Your task to perform on an android device: set the timer Image 0: 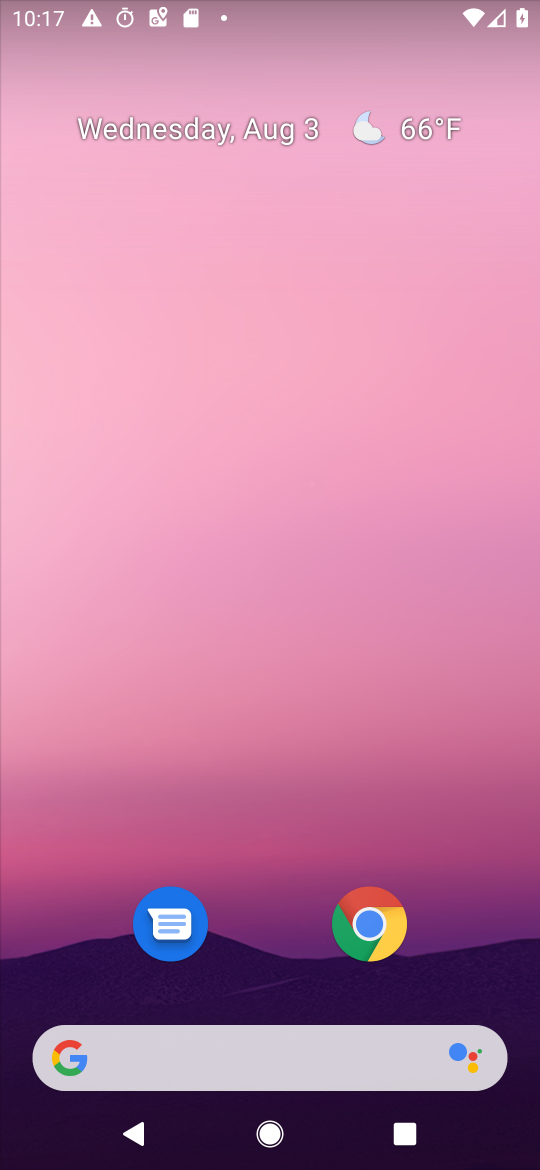
Step 0: drag from (276, 983) to (287, 140)
Your task to perform on an android device: set the timer Image 1: 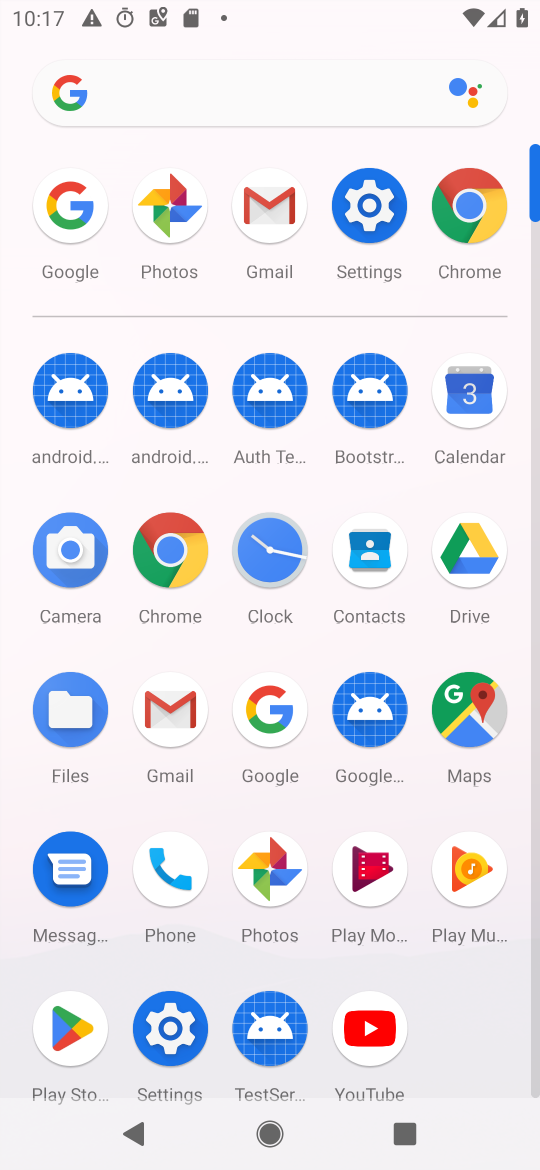
Step 1: click (261, 537)
Your task to perform on an android device: set the timer Image 2: 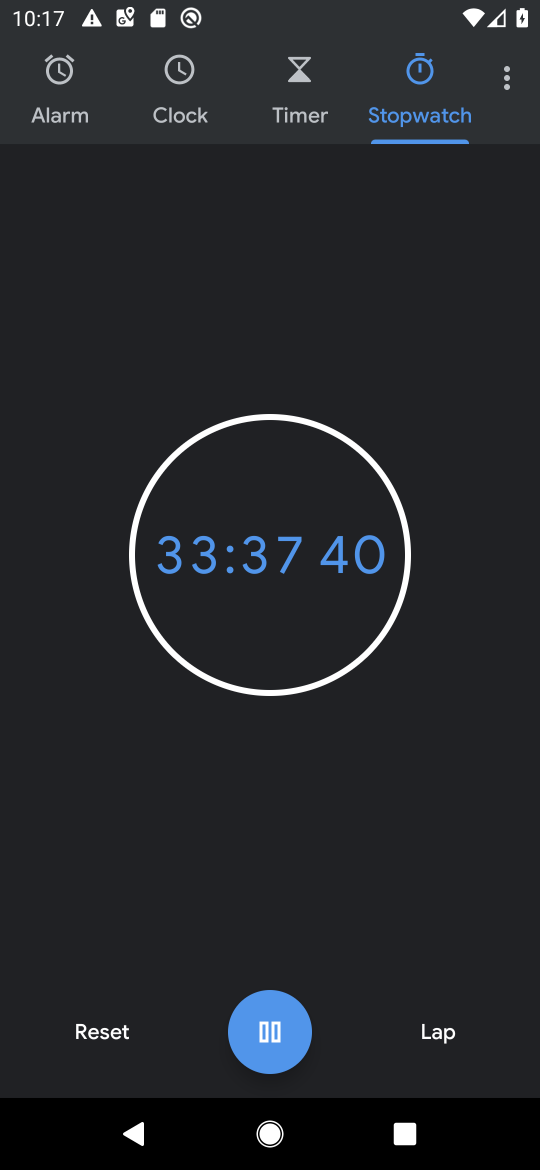
Step 2: click (88, 1023)
Your task to perform on an android device: set the timer Image 3: 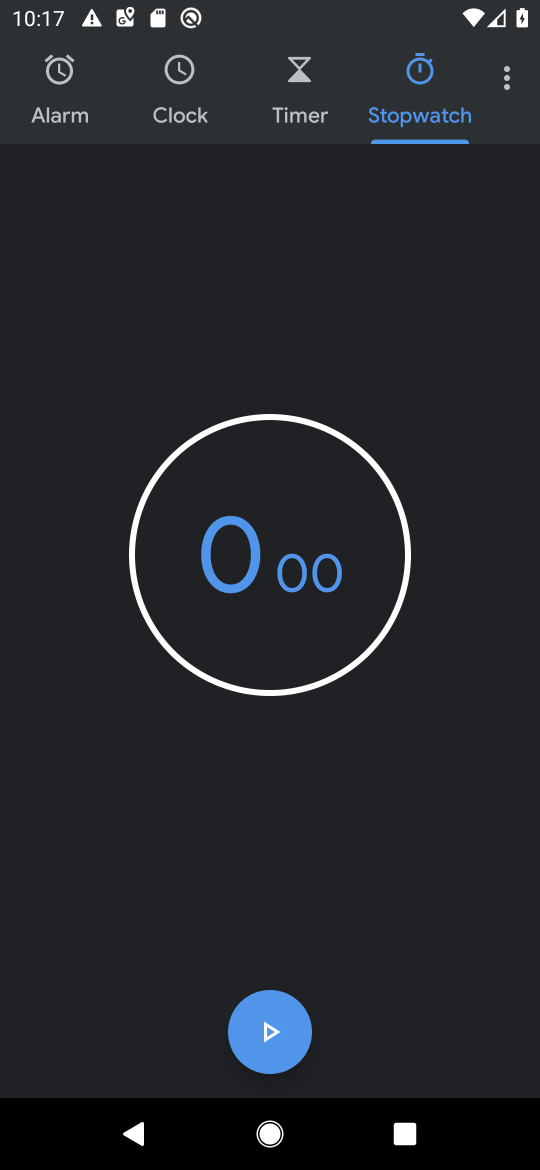
Step 3: click (287, 69)
Your task to perform on an android device: set the timer Image 4: 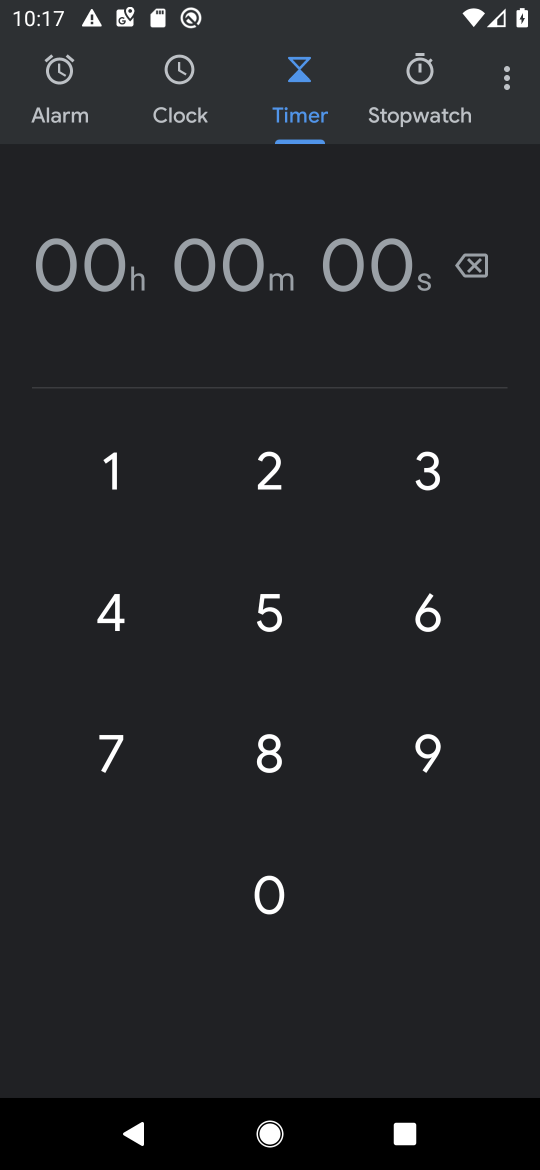
Step 4: click (271, 466)
Your task to perform on an android device: set the timer Image 5: 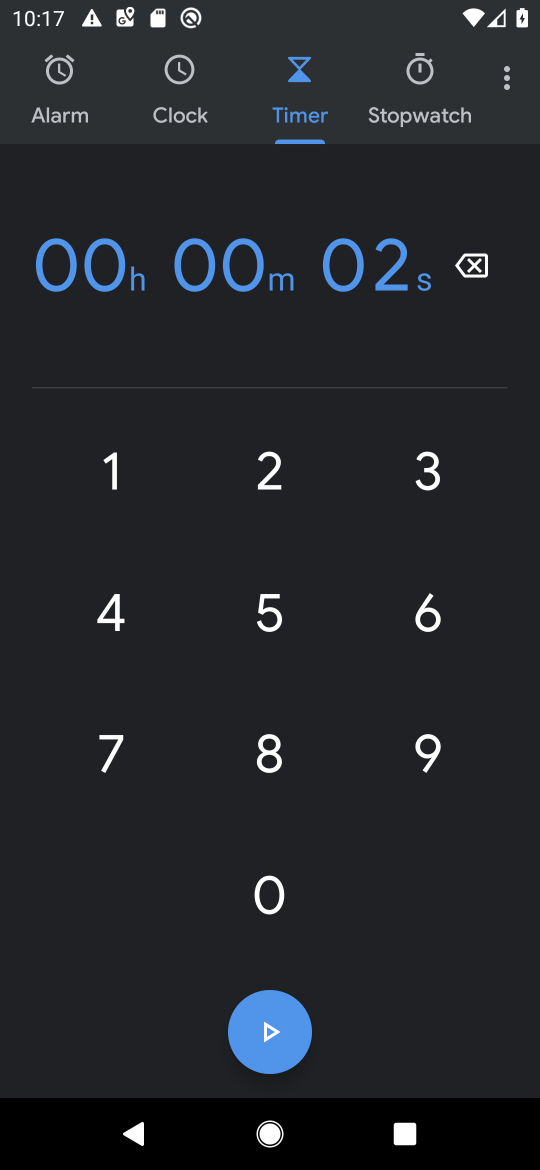
Step 5: click (263, 896)
Your task to perform on an android device: set the timer Image 6: 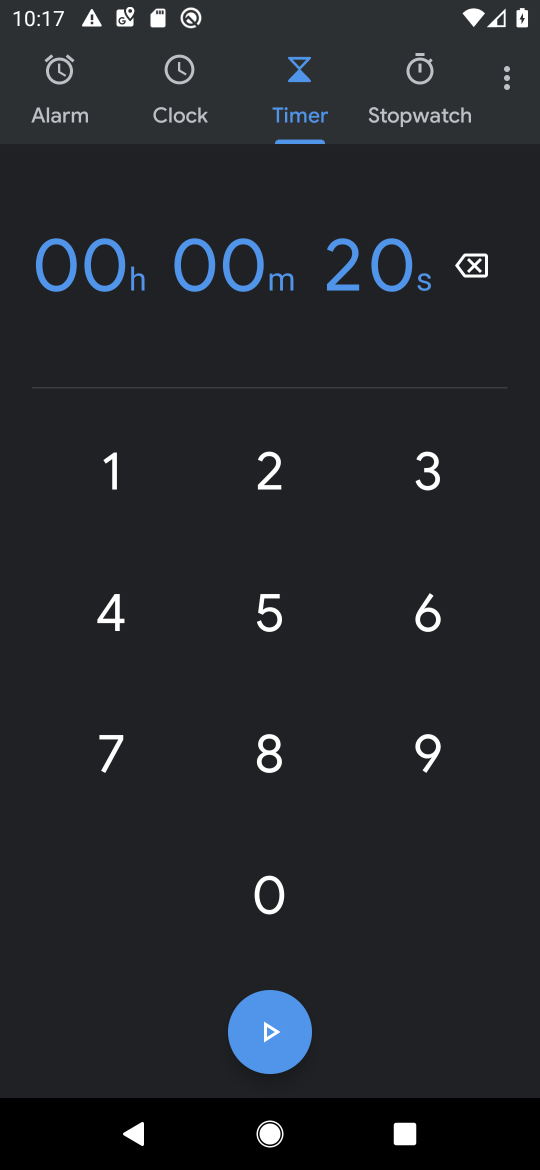
Step 6: click (263, 896)
Your task to perform on an android device: set the timer Image 7: 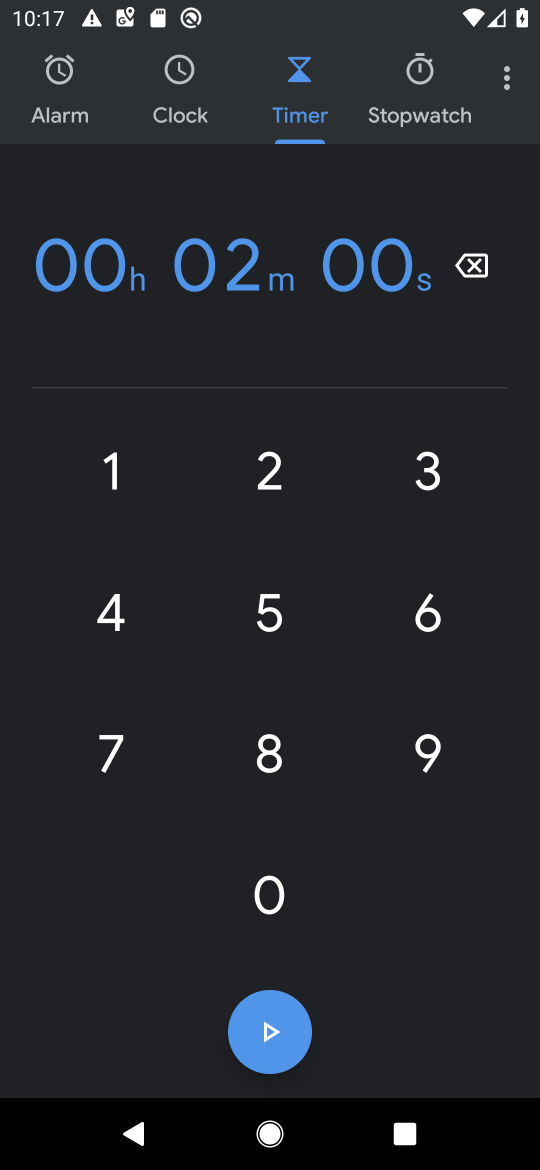
Step 7: click (263, 896)
Your task to perform on an android device: set the timer Image 8: 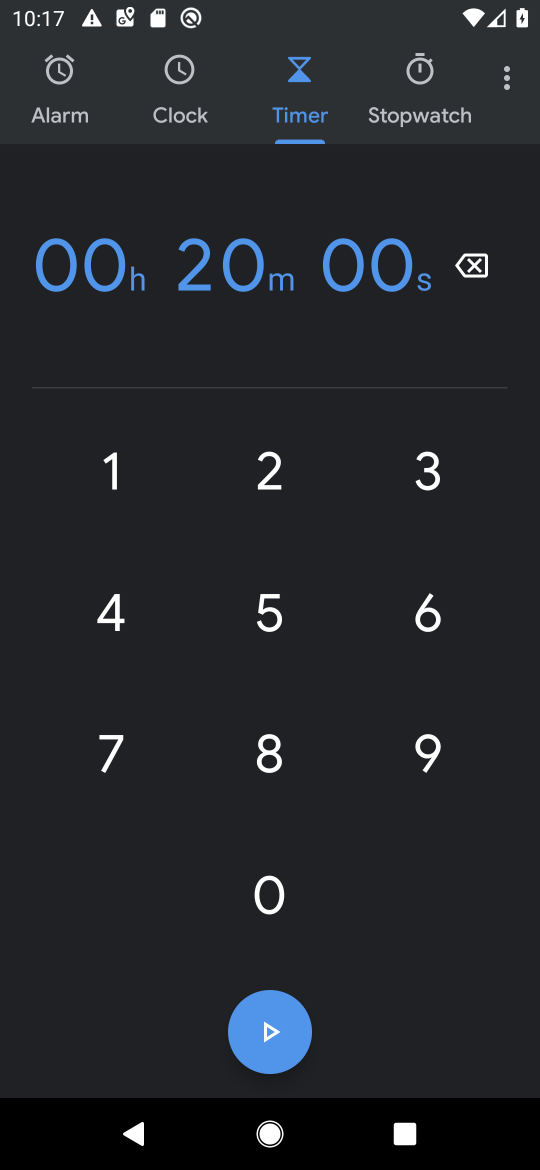
Step 8: click (267, 1022)
Your task to perform on an android device: set the timer Image 9: 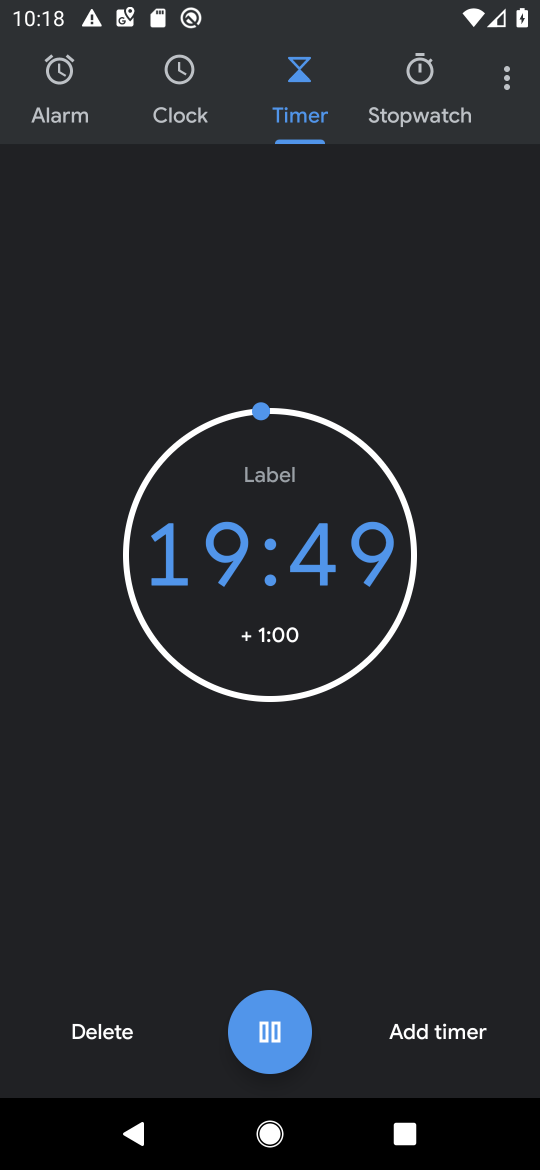
Step 9: task complete